Your task to perform on an android device: toggle data saver in the chrome app Image 0: 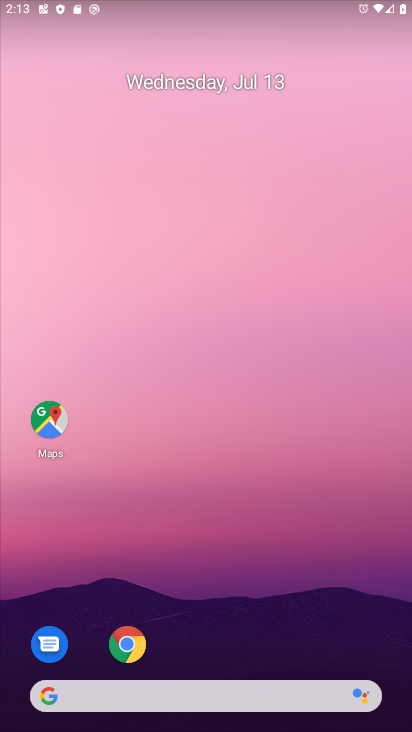
Step 0: click (133, 635)
Your task to perform on an android device: toggle data saver in the chrome app Image 1: 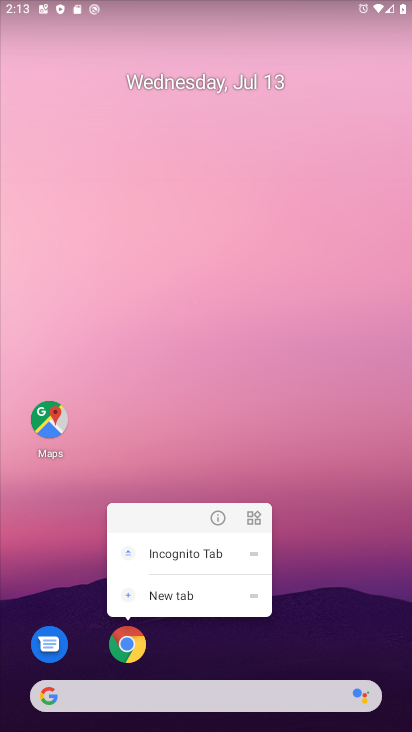
Step 1: click (120, 667)
Your task to perform on an android device: toggle data saver in the chrome app Image 2: 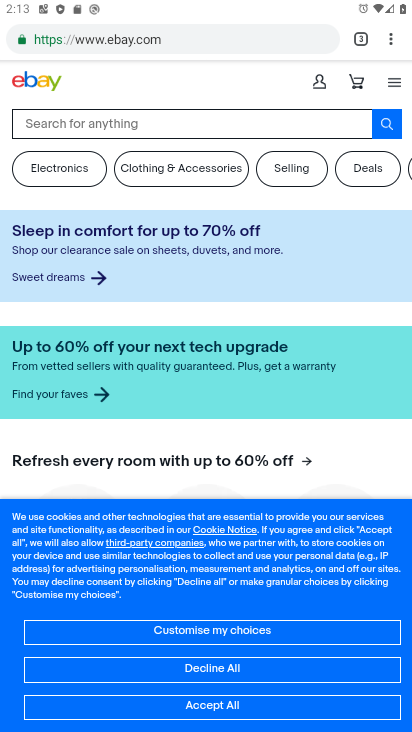
Step 2: drag from (387, 38) to (241, 476)
Your task to perform on an android device: toggle data saver in the chrome app Image 3: 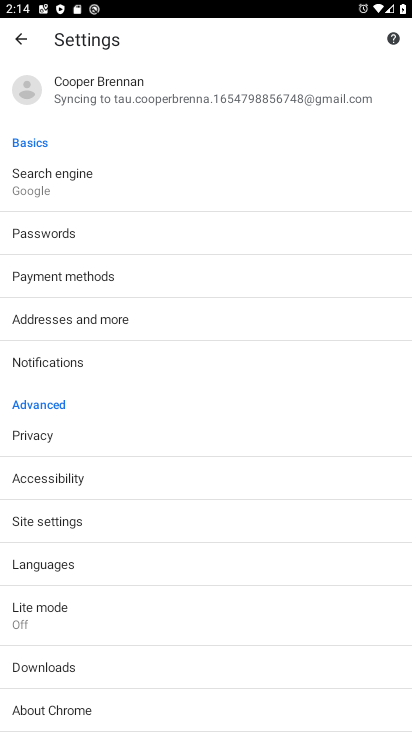
Step 3: click (58, 624)
Your task to perform on an android device: toggle data saver in the chrome app Image 4: 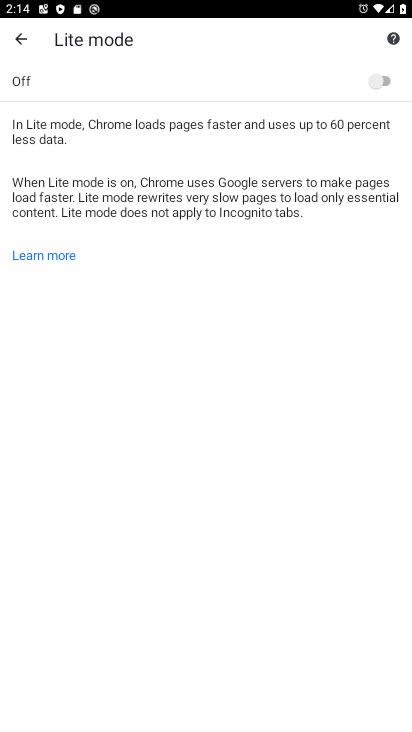
Step 4: click (386, 78)
Your task to perform on an android device: toggle data saver in the chrome app Image 5: 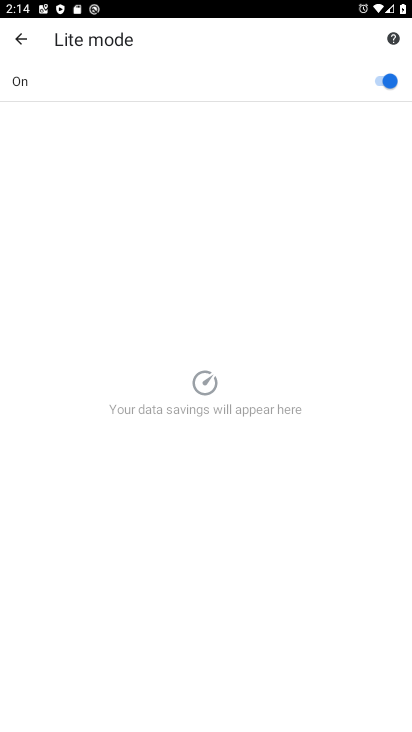
Step 5: task complete